Your task to perform on an android device: What's on my calendar tomorrow? Image 0: 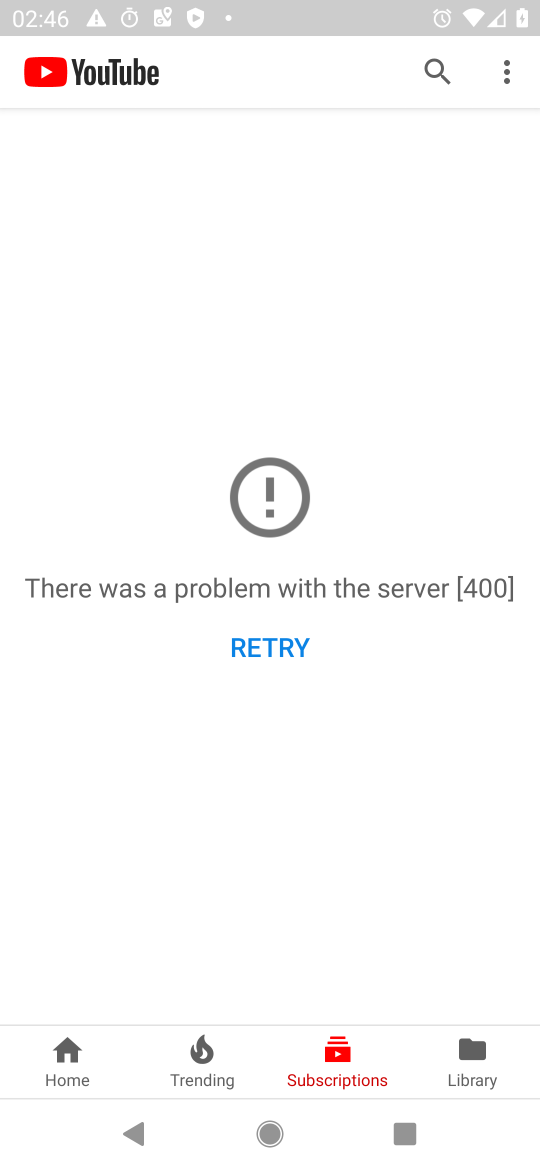
Step 0: press home button
Your task to perform on an android device: What's on my calendar tomorrow? Image 1: 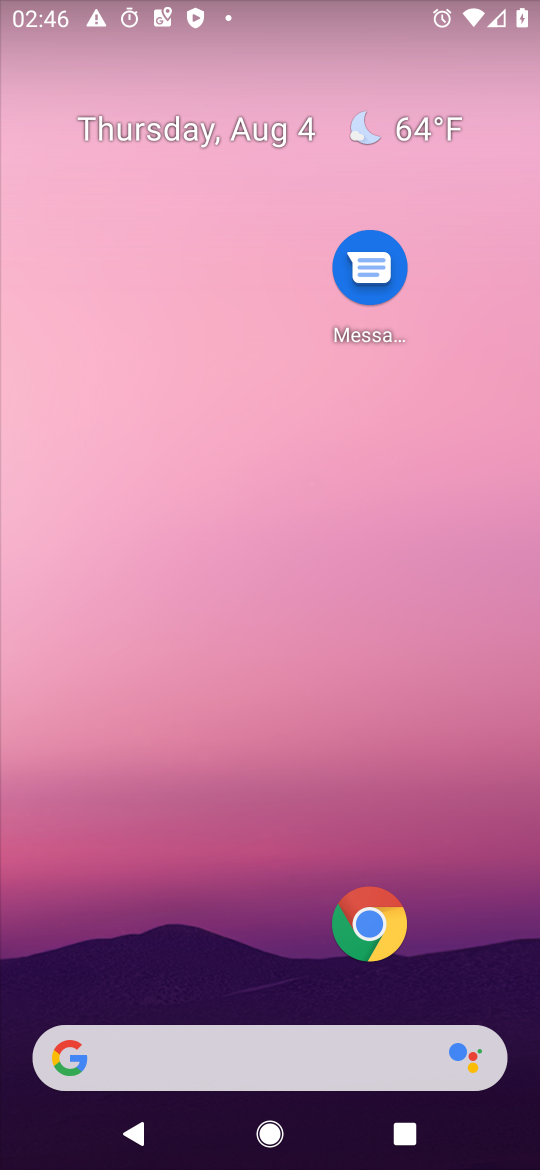
Step 1: drag from (109, 782) to (193, 20)
Your task to perform on an android device: What's on my calendar tomorrow? Image 2: 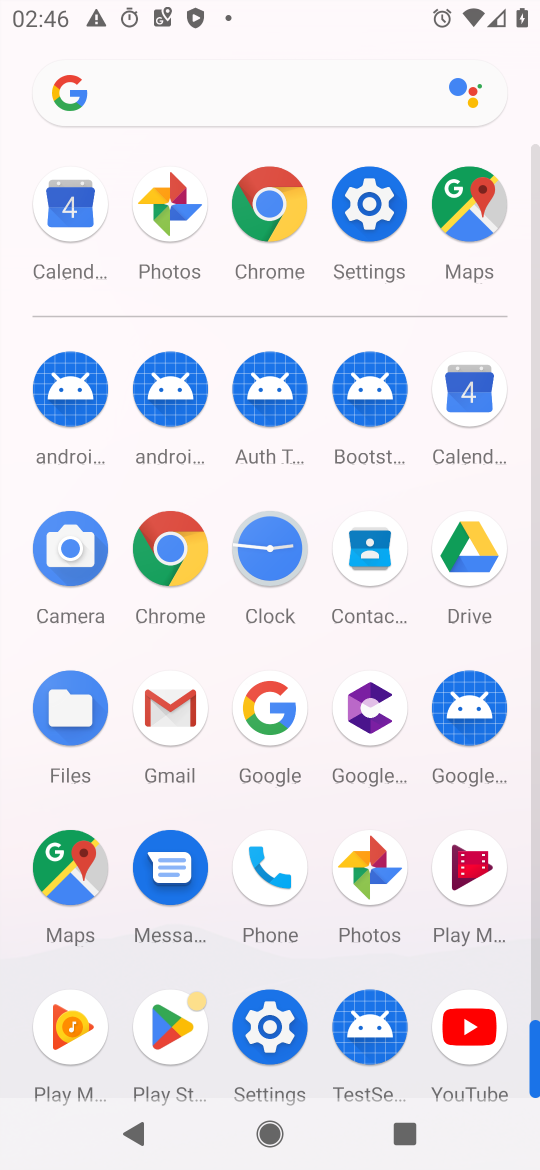
Step 2: click (481, 392)
Your task to perform on an android device: What's on my calendar tomorrow? Image 3: 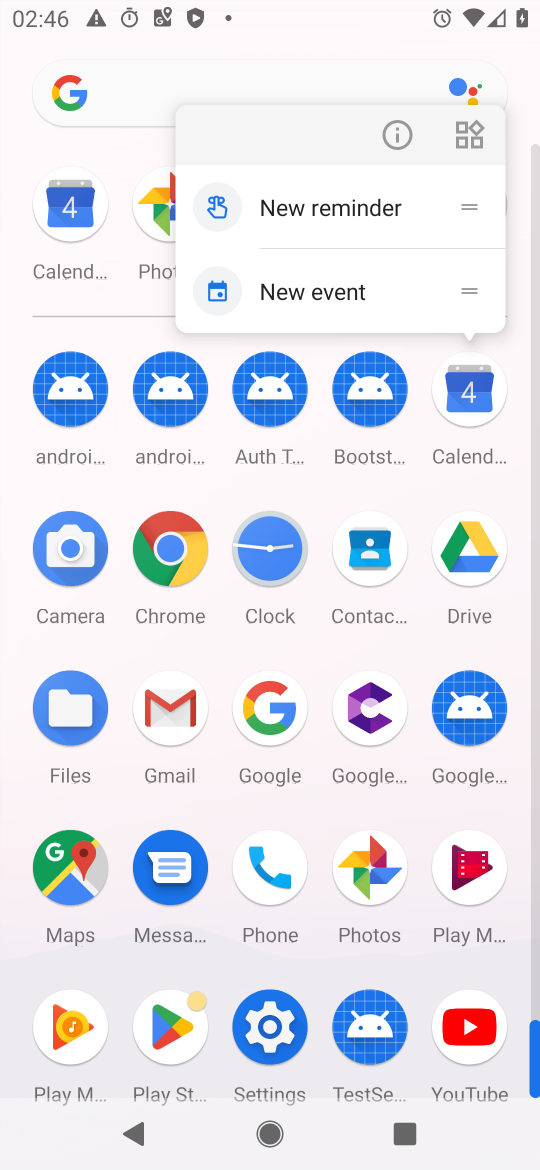
Step 3: click (476, 408)
Your task to perform on an android device: What's on my calendar tomorrow? Image 4: 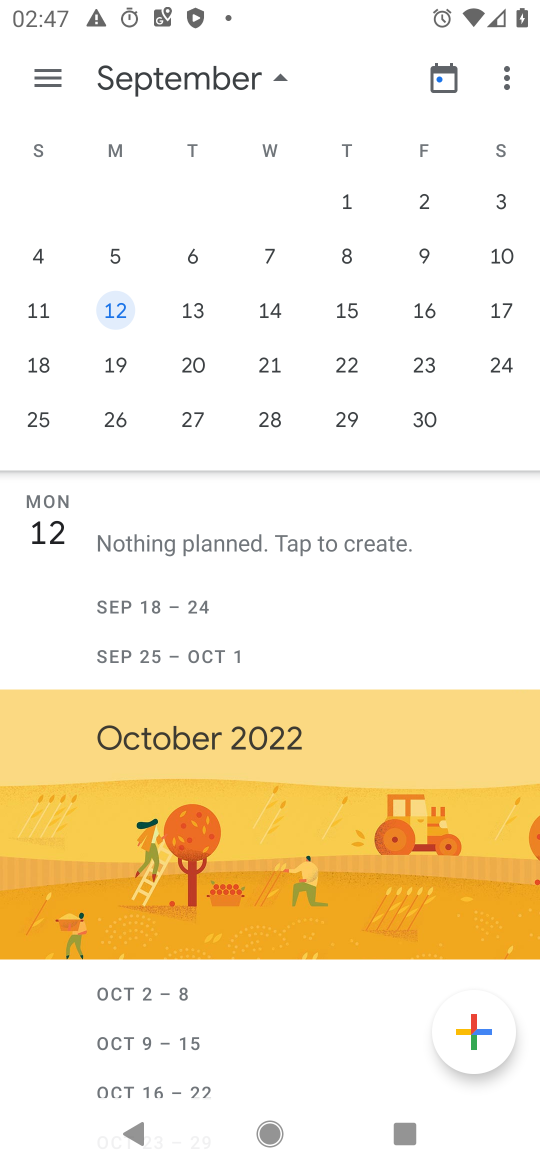
Step 4: drag from (27, 209) to (516, 308)
Your task to perform on an android device: What's on my calendar tomorrow? Image 5: 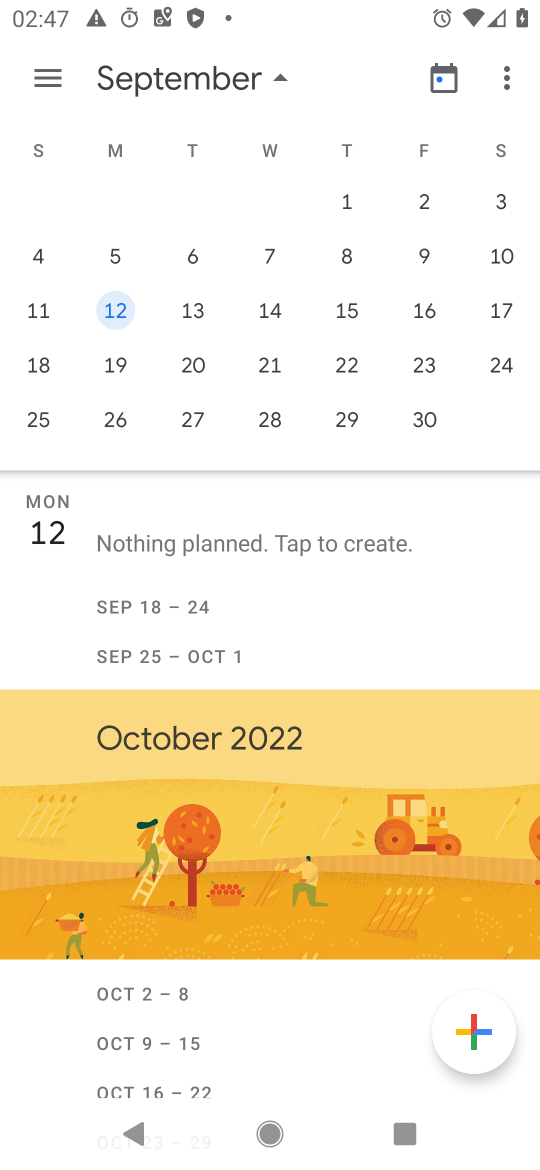
Step 5: drag from (14, 348) to (538, 284)
Your task to perform on an android device: What's on my calendar tomorrow? Image 6: 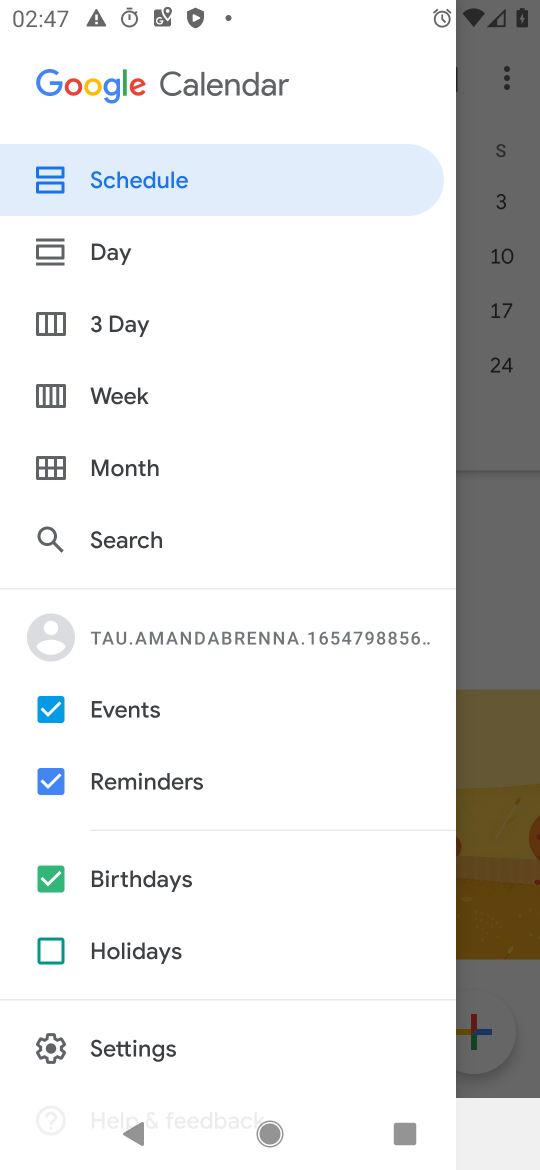
Step 6: click (524, 572)
Your task to perform on an android device: What's on my calendar tomorrow? Image 7: 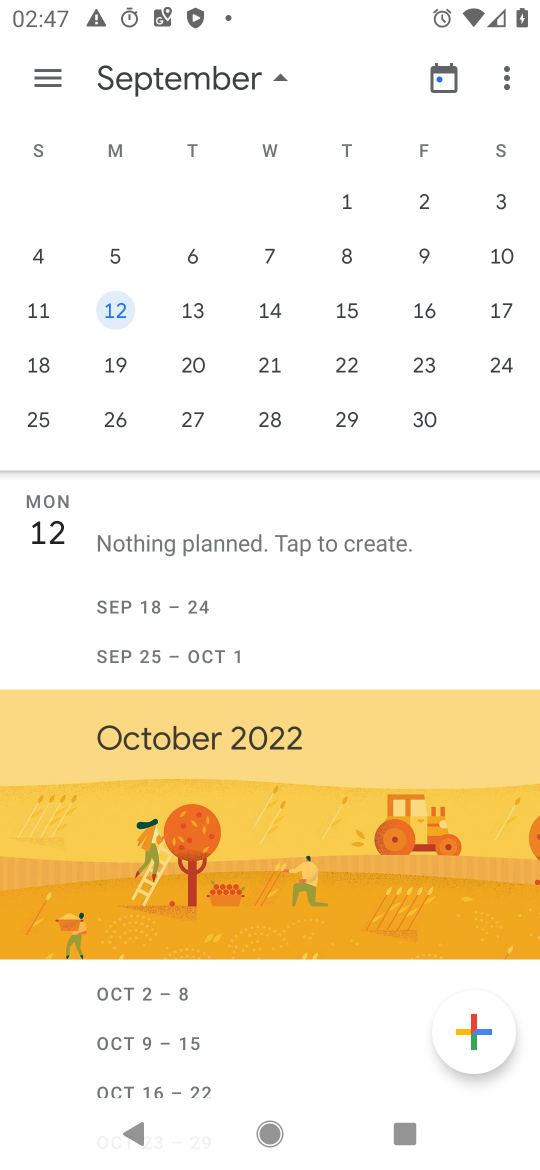
Step 7: drag from (121, 337) to (198, 1122)
Your task to perform on an android device: What's on my calendar tomorrow? Image 8: 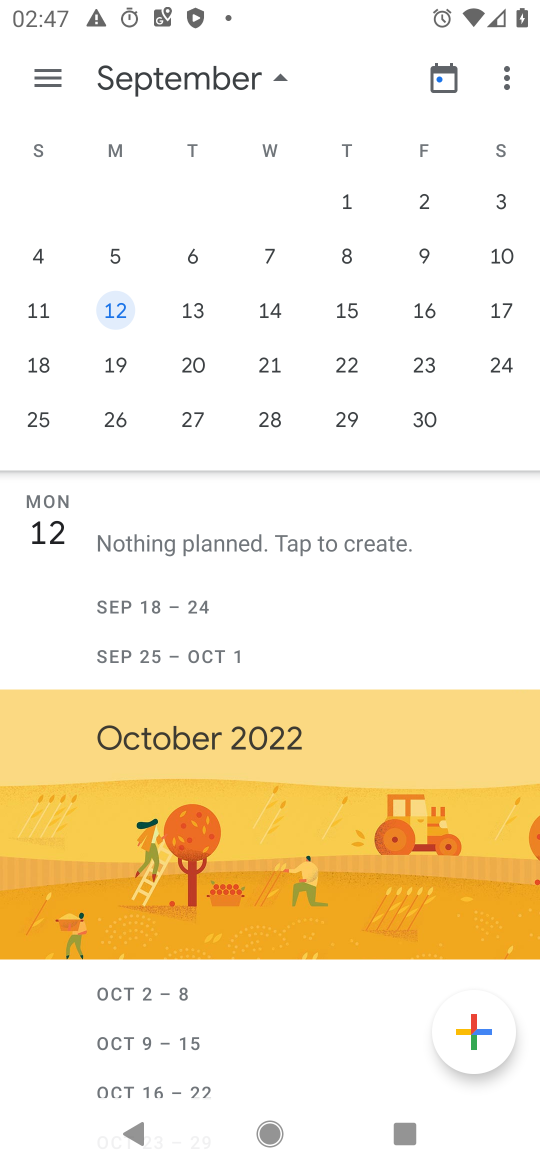
Step 8: click (22, 231)
Your task to perform on an android device: What's on my calendar tomorrow? Image 9: 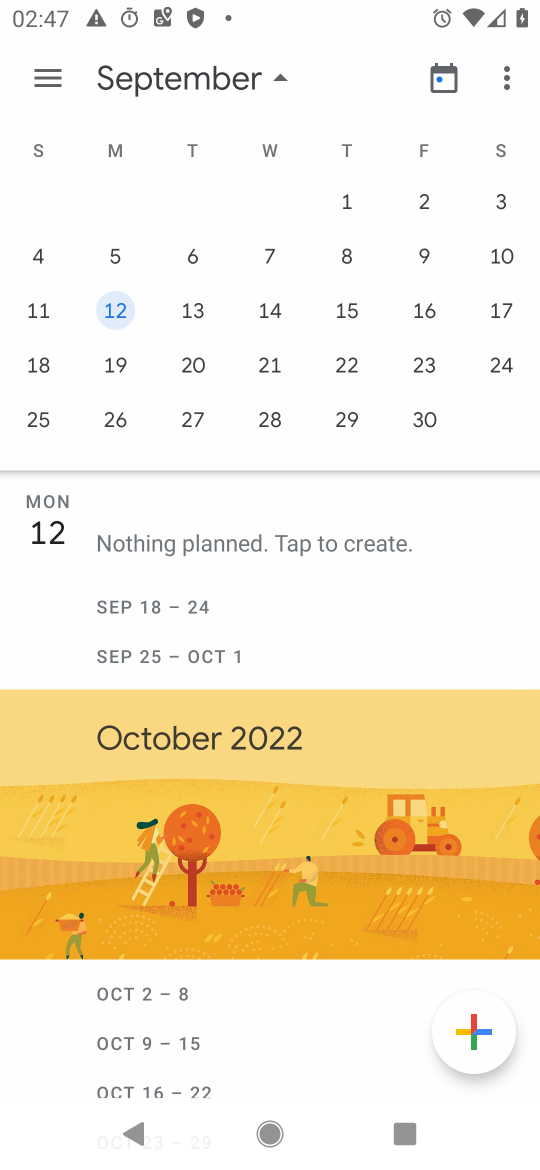
Step 9: task complete